Your task to perform on an android device: Set an alarm for 7pm Image 0: 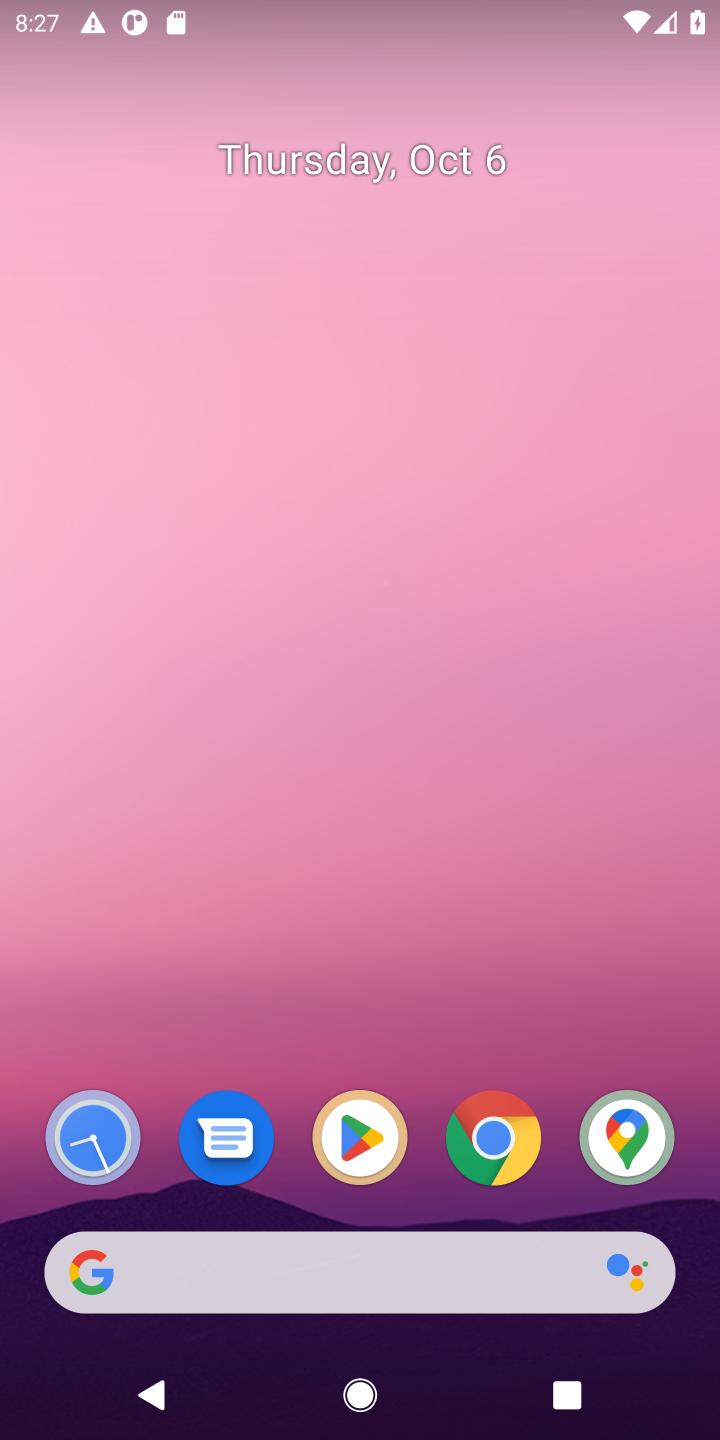
Step 0: click (297, 1187)
Your task to perform on an android device: Set an alarm for 7pm Image 1: 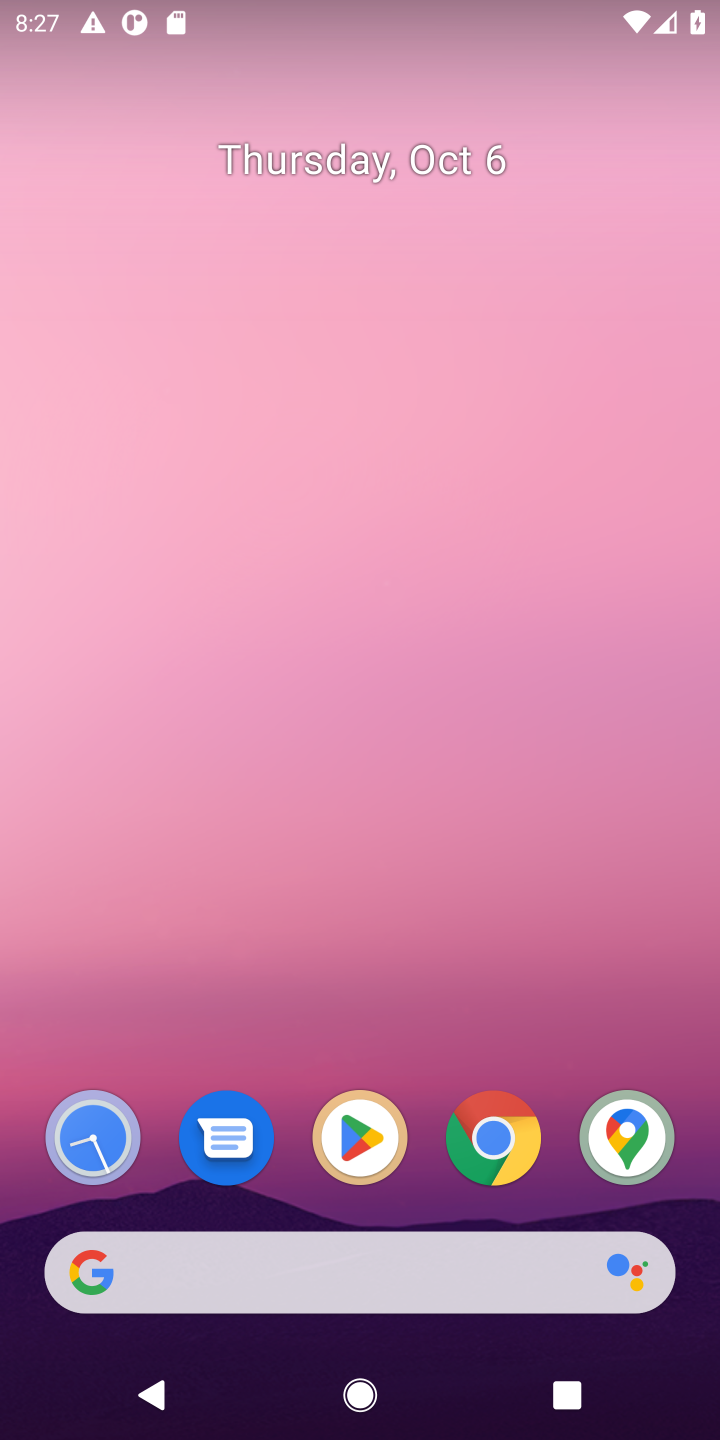
Step 1: click (108, 1128)
Your task to perform on an android device: Set an alarm for 7pm Image 2: 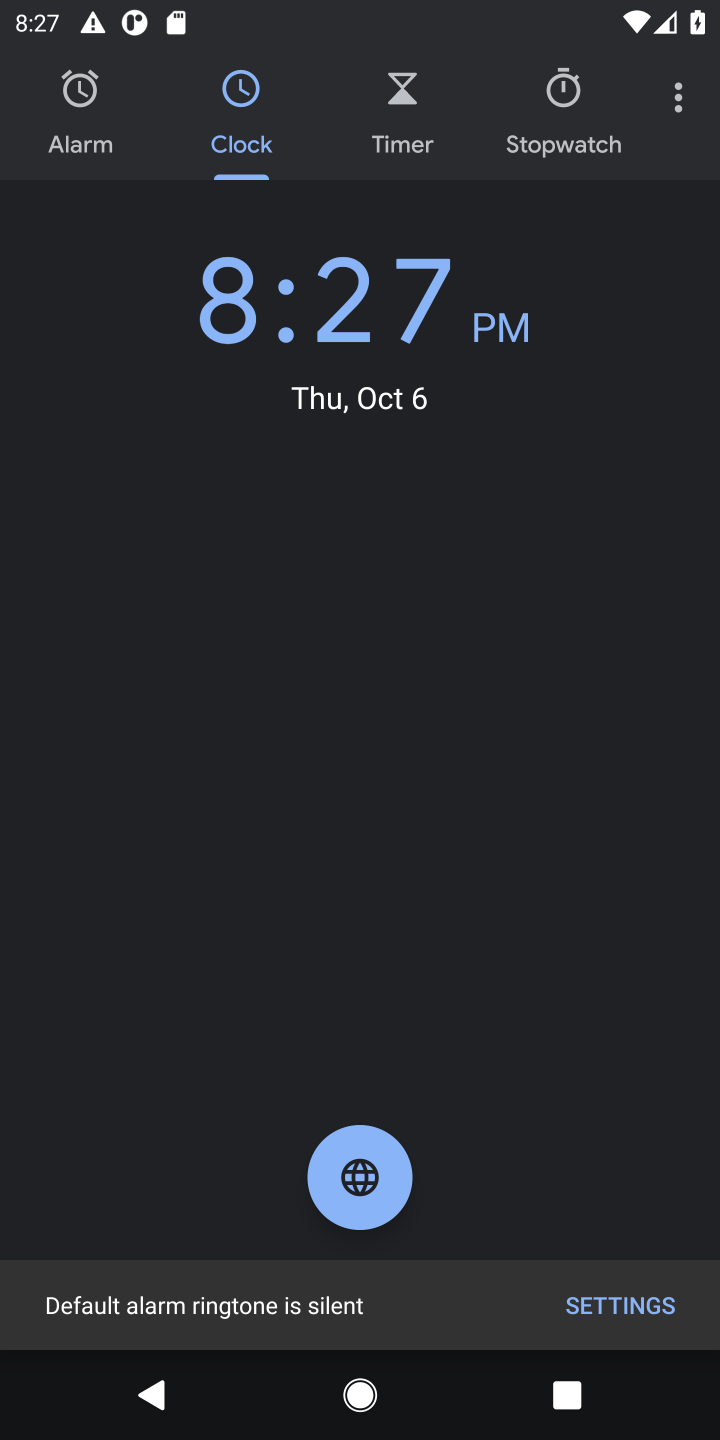
Step 2: click (100, 1142)
Your task to perform on an android device: Set an alarm for 7pm Image 3: 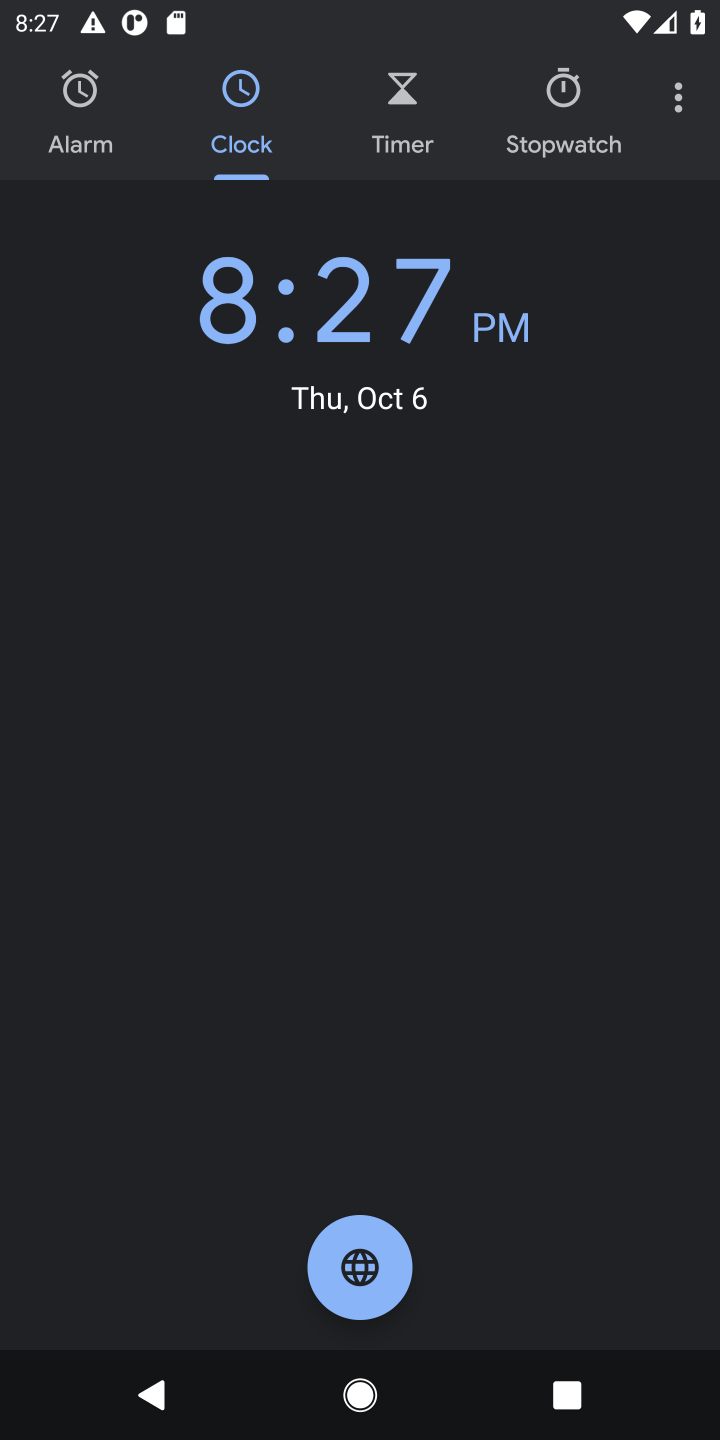
Step 3: click (67, 113)
Your task to perform on an android device: Set an alarm for 7pm Image 4: 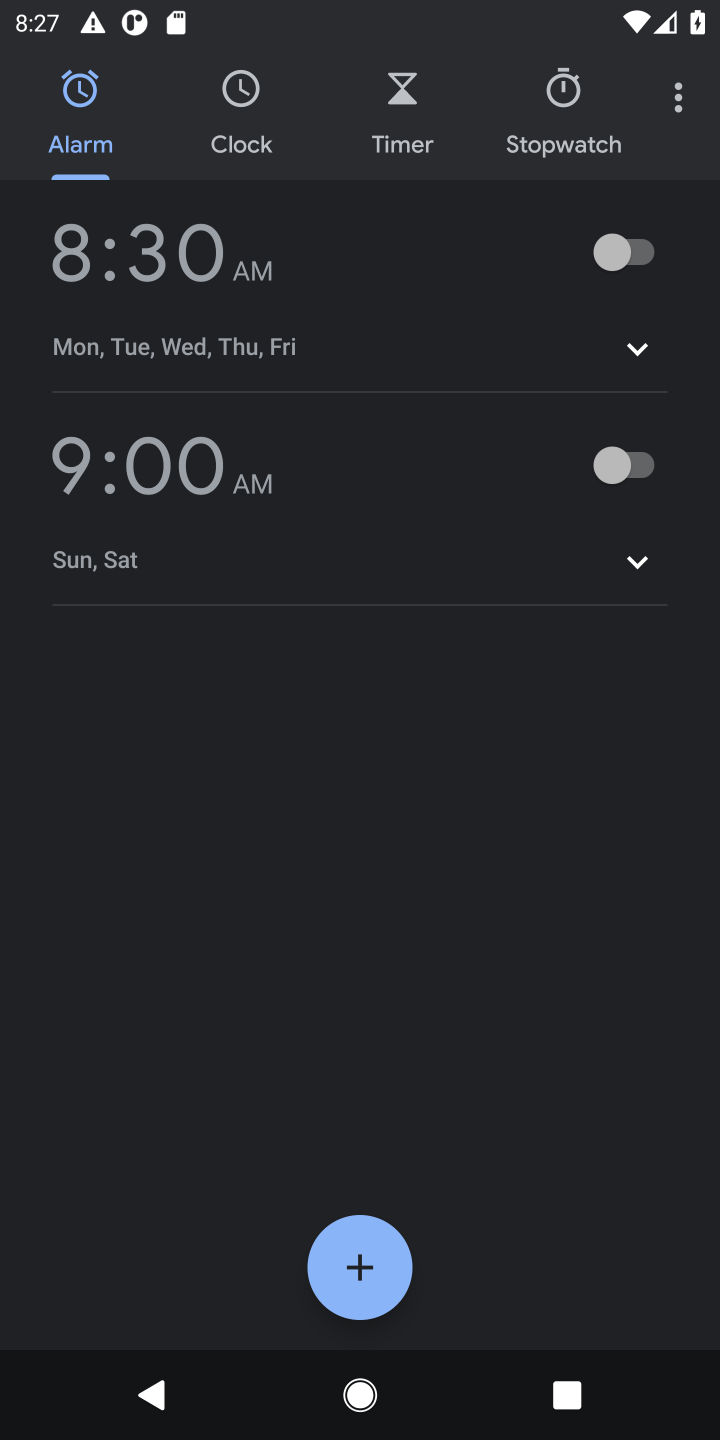
Step 4: click (368, 1254)
Your task to perform on an android device: Set an alarm for 7pm Image 5: 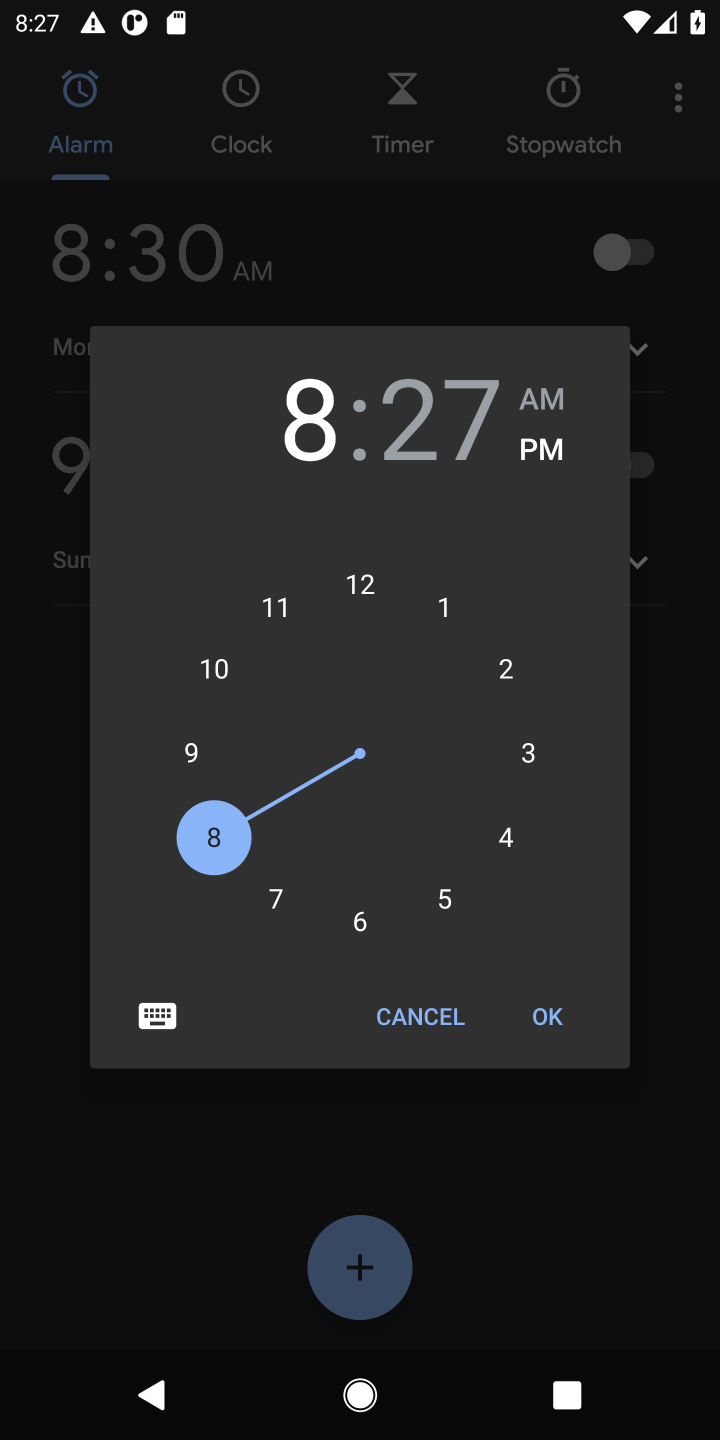
Step 5: click (274, 898)
Your task to perform on an android device: Set an alarm for 7pm Image 6: 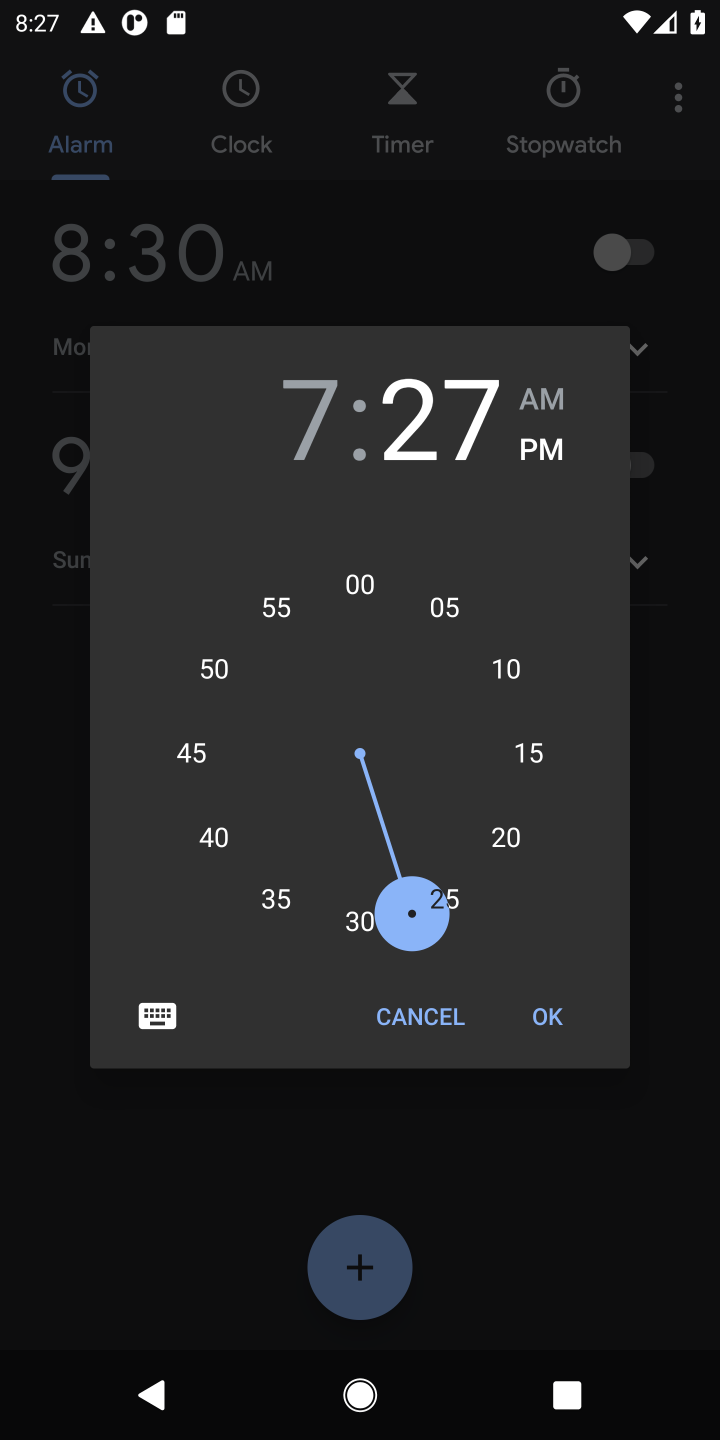
Step 6: click (352, 593)
Your task to perform on an android device: Set an alarm for 7pm Image 7: 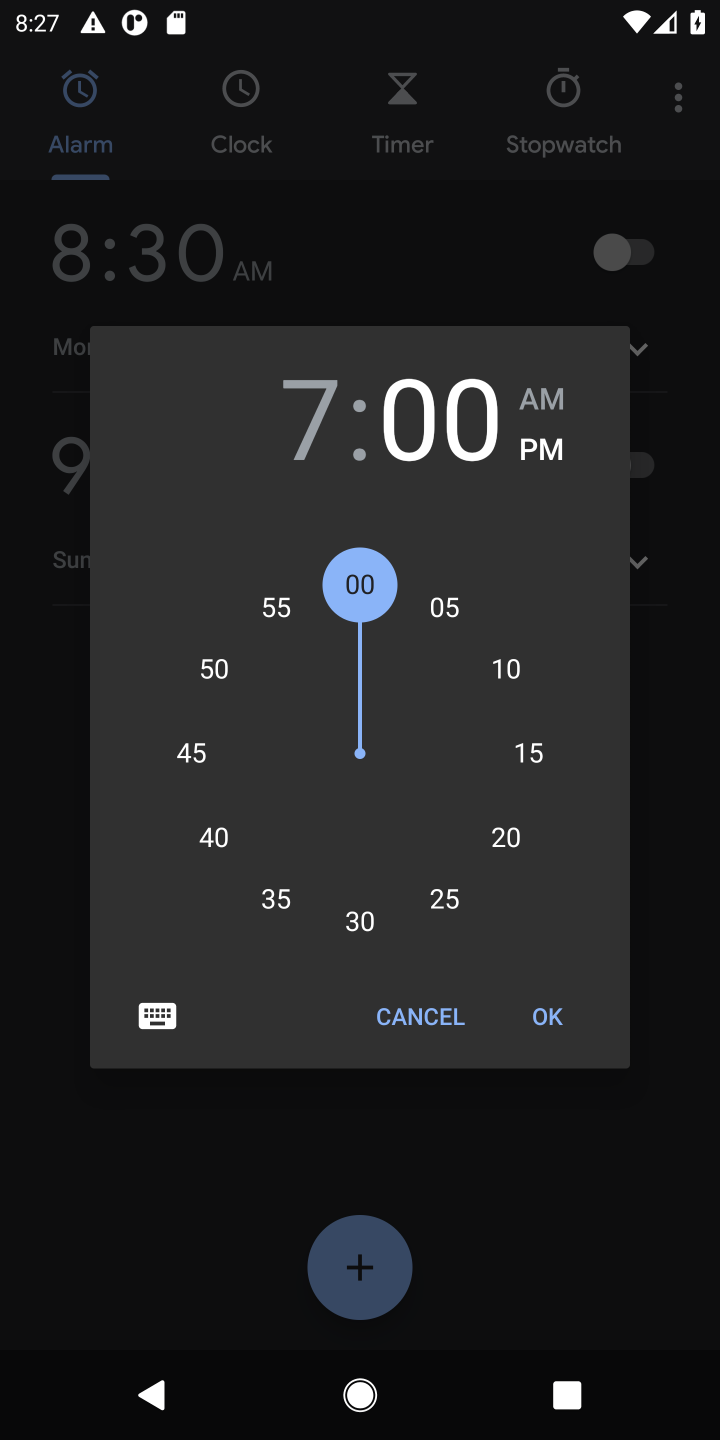
Step 7: click (553, 1013)
Your task to perform on an android device: Set an alarm for 7pm Image 8: 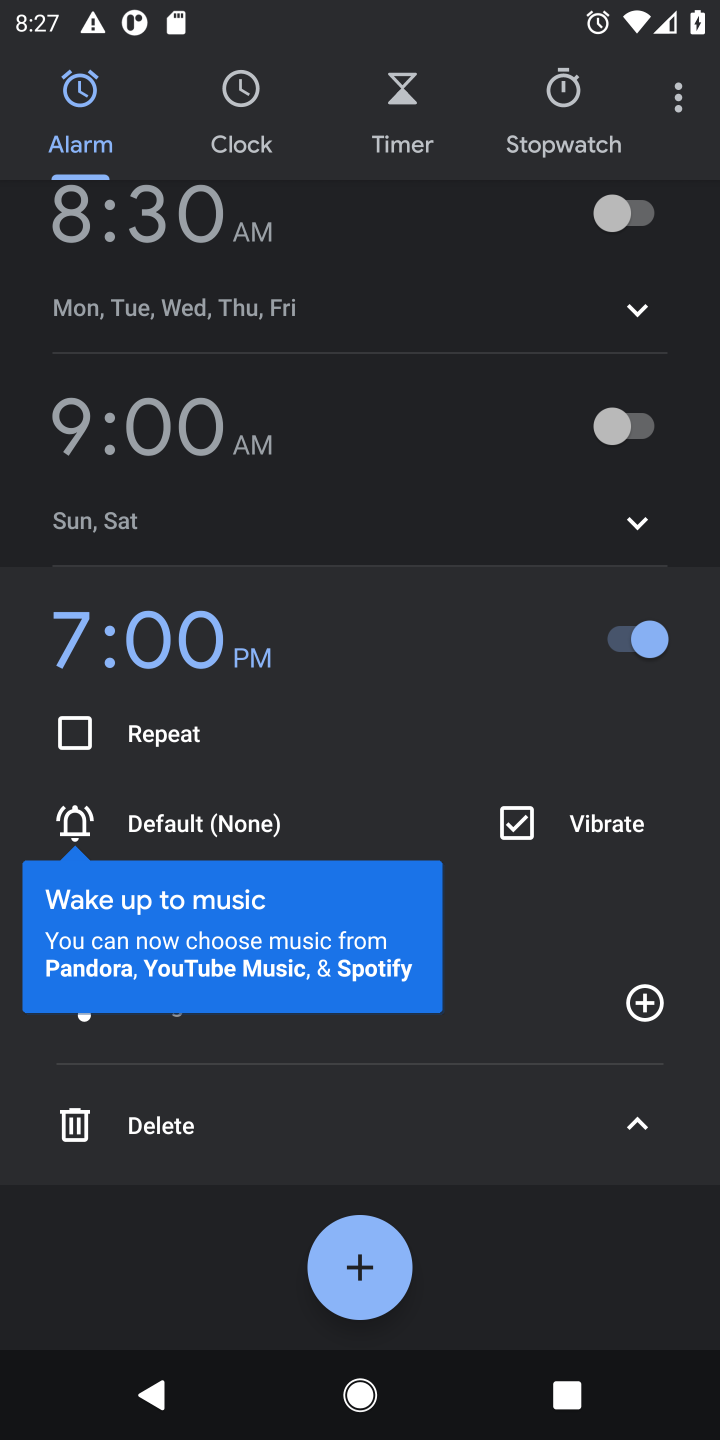
Step 8: task complete